Your task to perform on an android device: toggle notifications settings in the gmail app Image 0: 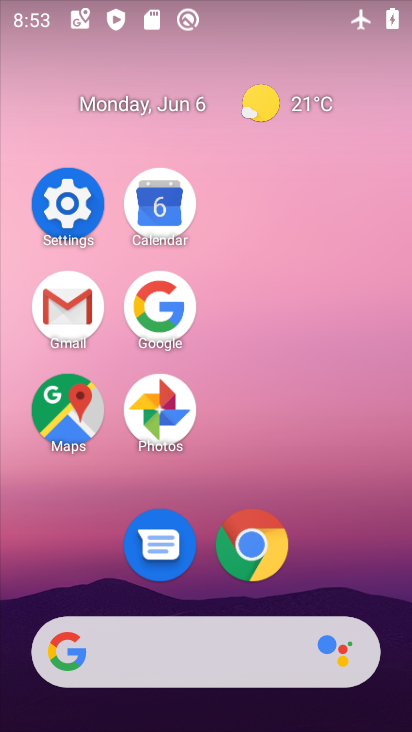
Step 0: click (96, 302)
Your task to perform on an android device: toggle notifications settings in the gmail app Image 1: 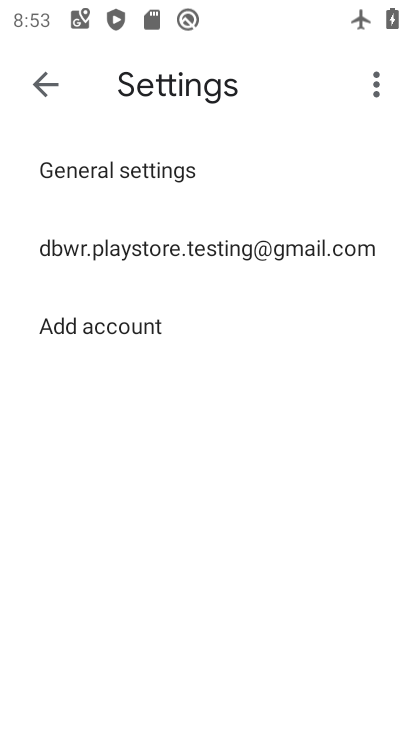
Step 1: click (45, 97)
Your task to perform on an android device: toggle notifications settings in the gmail app Image 2: 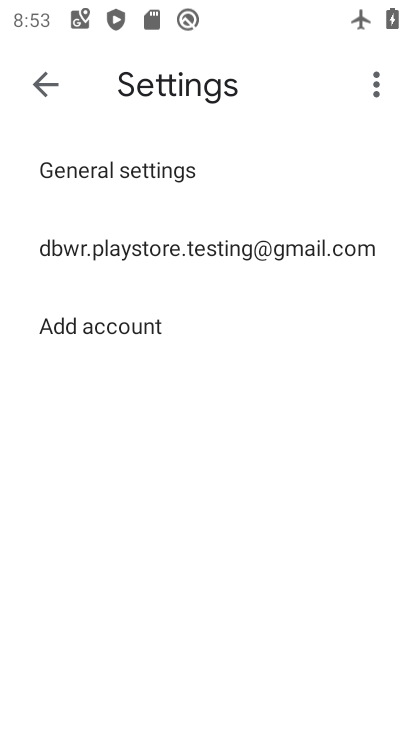
Step 2: click (121, 235)
Your task to perform on an android device: toggle notifications settings in the gmail app Image 3: 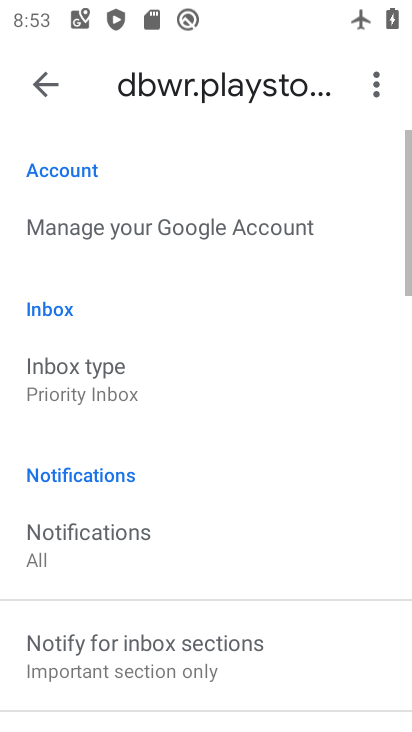
Step 3: click (174, 524)
Your task to perform on an android device: toggle notifications settings in the gmail app Image 4: 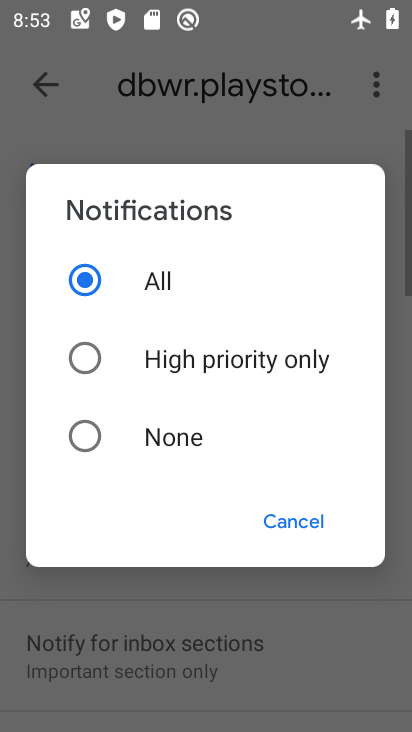
Step 4: click (205, 371)
Your task to perform on an android device: toggle notifications settings in the gmail app Image 5: 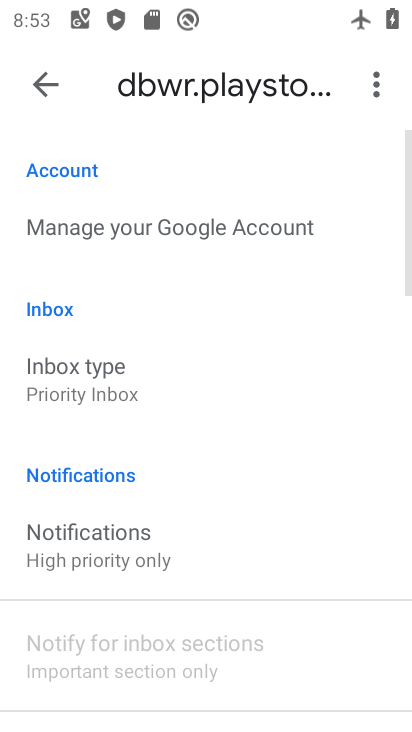
Step 5: task complete